Your task to perform on an android device: toggle data saver in the chrome app Image 0: 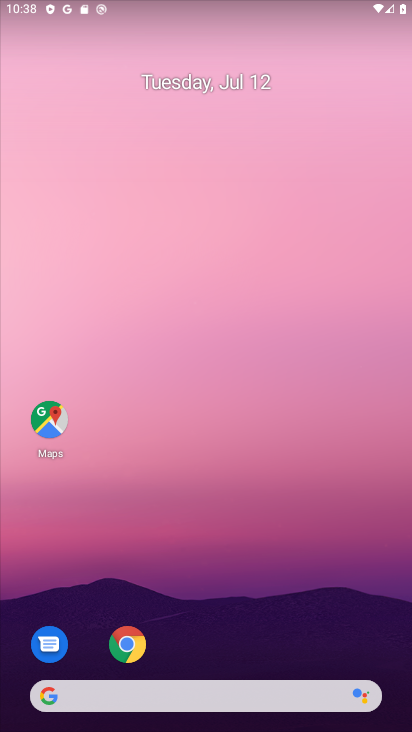
Step 0: click (129, 662)
Your task to perform on an android device: toggle data saver in the chrome app Image 1: 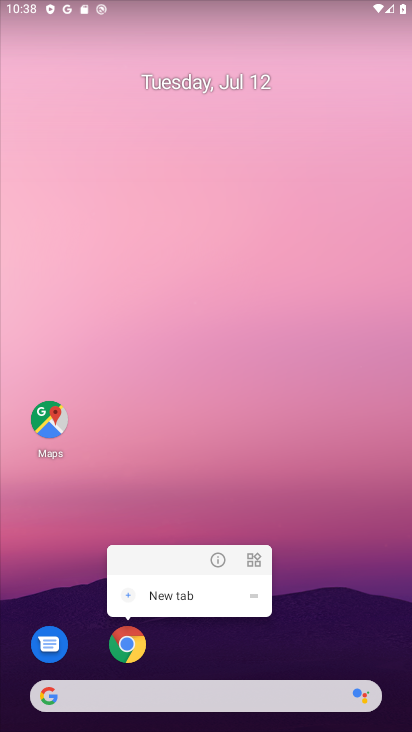
Step 1: click (129, 653)
Your task to perform on an android device: toggle data saver in the chrome app Image 2: 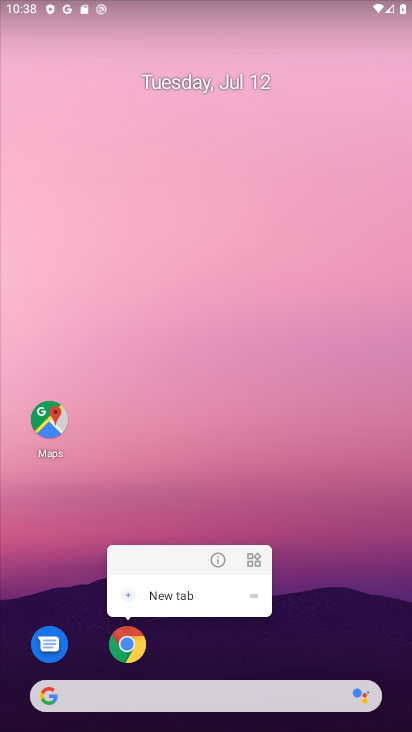
Step 2: click (133, 644)
Your task to perform on an android device: toggle data saver in the chrome app Image 3: 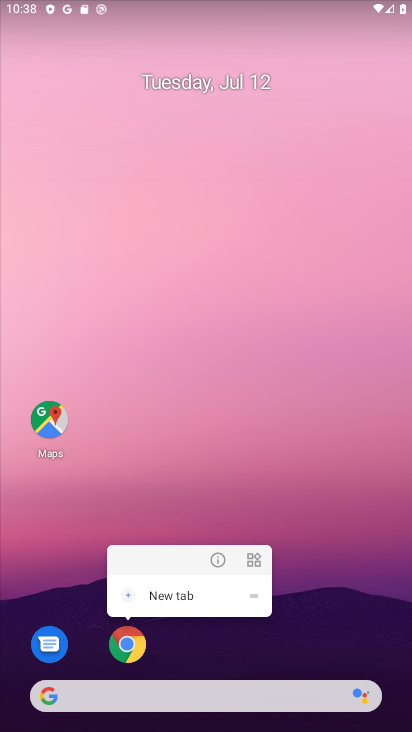
Step 3: click (133, 644)
Your task to perform on an android device: toggle data saver in the chrome app Image 4: 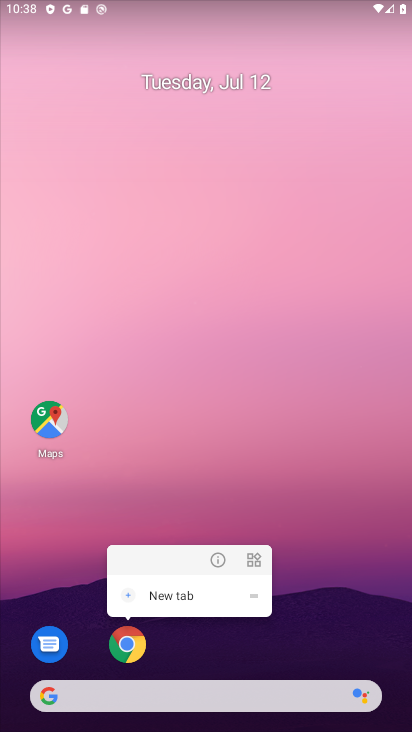
Step 4: click (122, 641)
Your task to perform on an android device: toggle data saver in the chrome app Image 5: 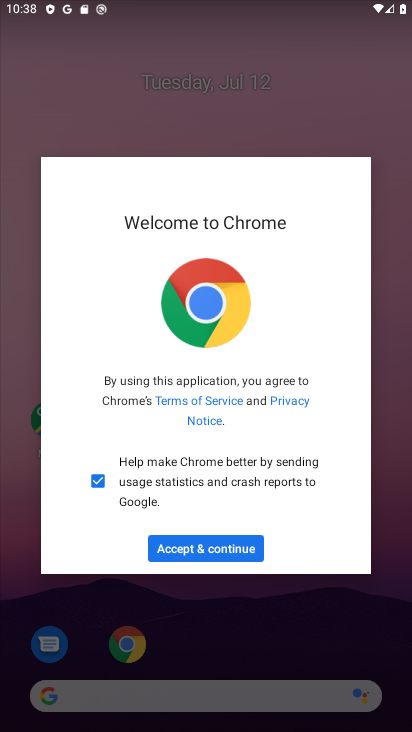
Step 5: click (223, 537)
Your task to perform on an android device: toggle data saver in the chrome app Image 6: 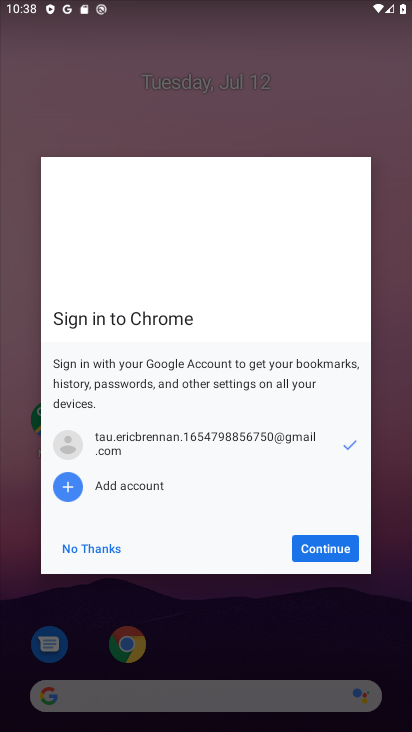
Step 6: click (315, 548)
Your task to perform on an android device: toggle data saver in the chrome app Image 7: 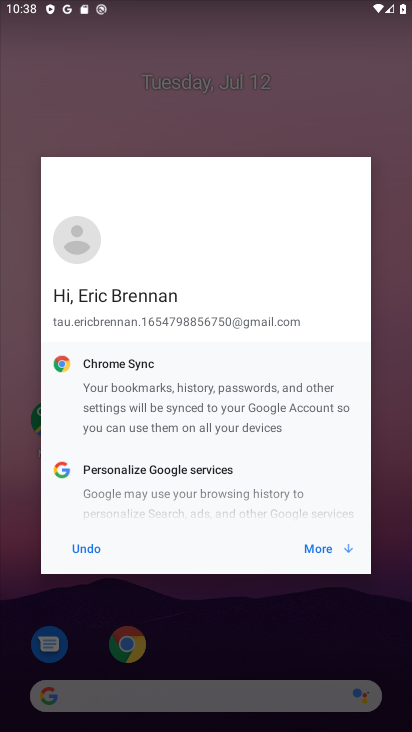
Step 7: click (336, 553)
Your task to perform on an android device: toggle data saver in the chrome app Image 8: 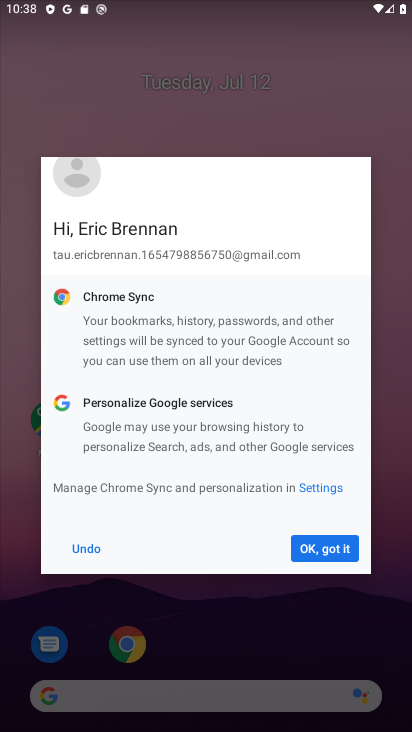
Step 8: click (336, 553)
Your task to perform on an android device: toggle data saver in the chrome app Image 9: 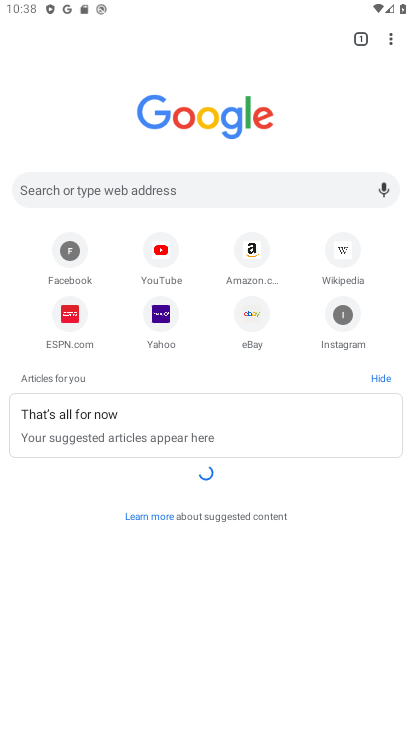
Step 9: drag from (400, 33) to (269, 324)
Your task to perform on an android device: toggle data saver in the chrome app Image 10: 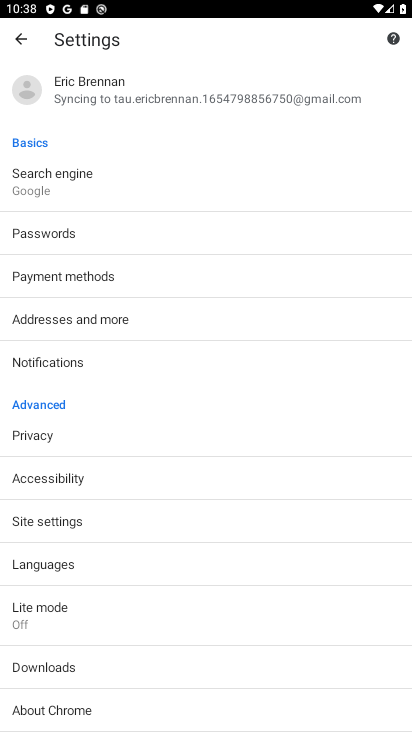
Step 10: click (62, 614)
Your task to perform on an android device: toggle data saver in the chrome app Image 11: 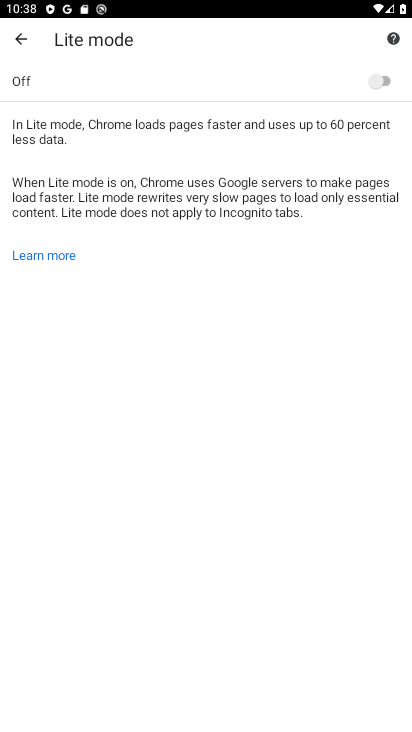
Step 11: click (394, 81)
Your task to perform on an android device: toggle data saver in the chrome app Image 12: 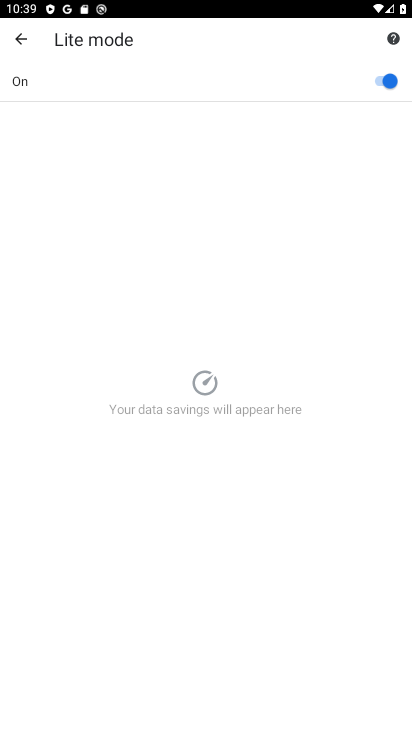
Step 12: task complete